Your task to perform on an android device: toggle improve location accuracy Image 0: 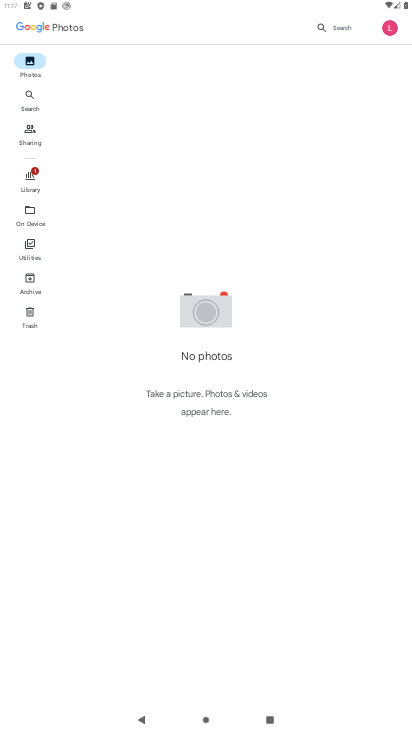
Step 0: task complete